Your task to perform on an android device: clear history in the chrome app Image 0: 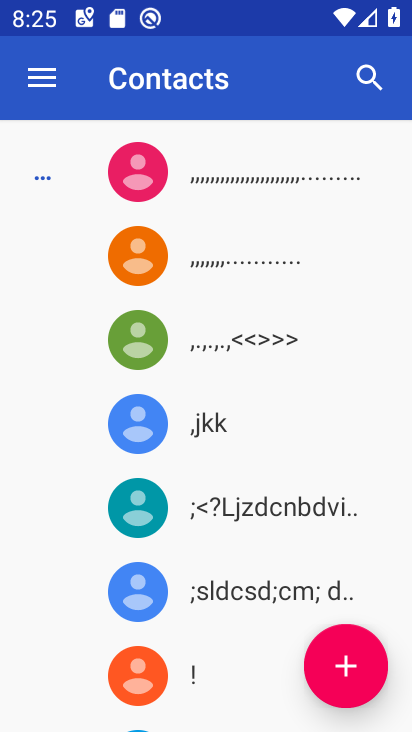
Step 0: press home button
Your task to perform on an android device: clear history in the chrome app Image 1: 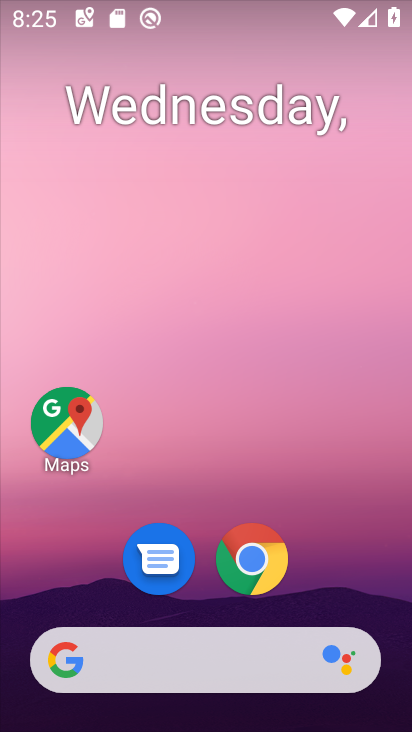
Step 1: drag from (341, 581) to (304, 148)
Your task to perform on an android device: clear history in the chrome app Image 2: 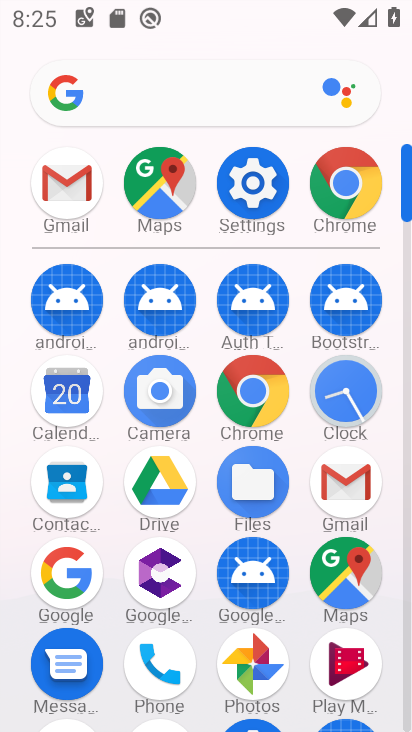
Step 2: click (261, 402)
Your task to perform on an android device: clear history in the chrome app Image 3: 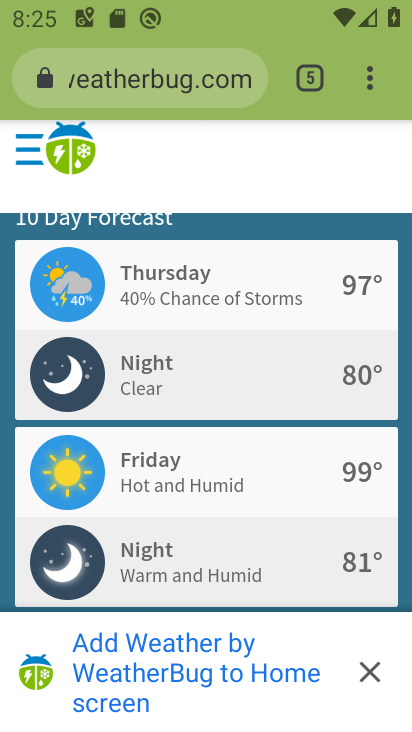
Step 3: drag from (372, 89) to (125, 544)
Your task to perform on an android device: clear history in the chrome app Image 4: 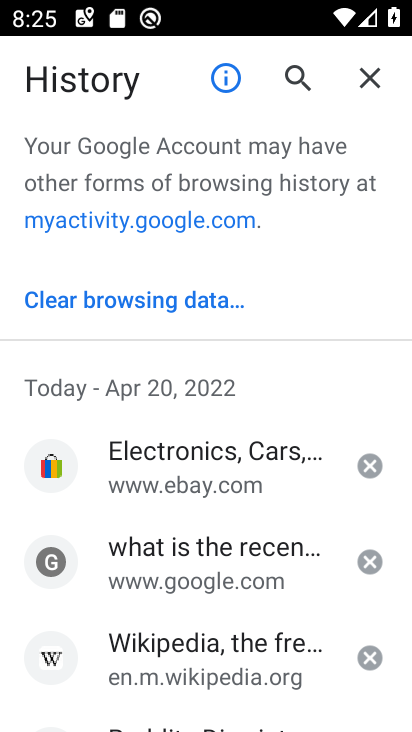
Step 4: click (145, 295)
Your task to perform on an android device: clear history in the chrome app Image 5: 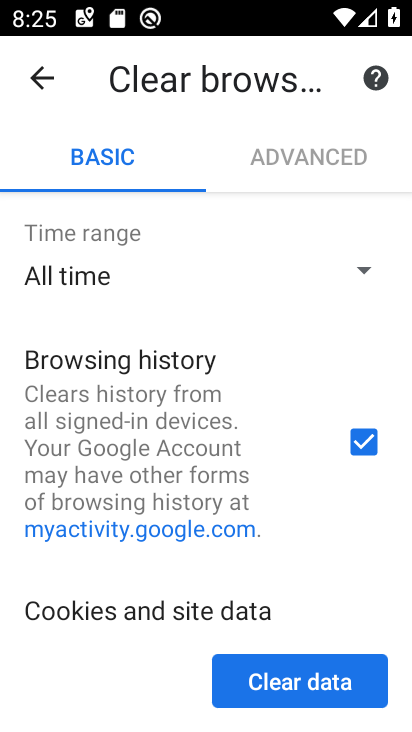
Step 5: click (296, 677)
Your task to perform on an android device: clear history in the chrome app Image 6: 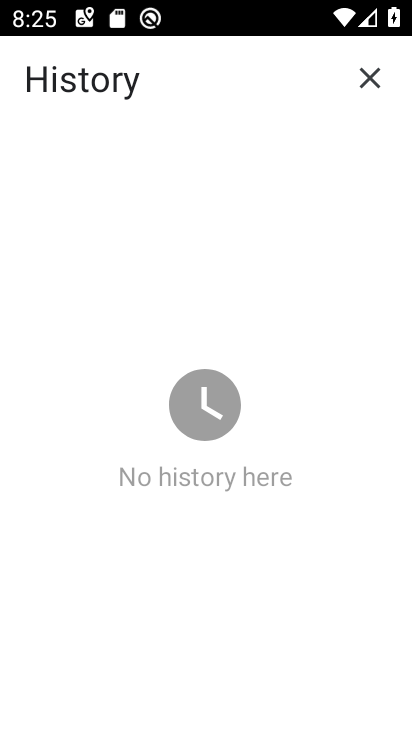
Step 6: task complete